Your task to perform on an android device: add a contact Image 0: 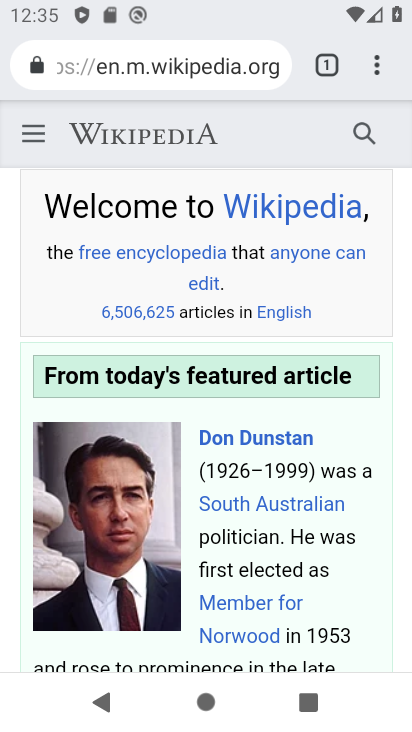
Step 0: press home button
Your task to perform on an android device: add a contact Image 1: 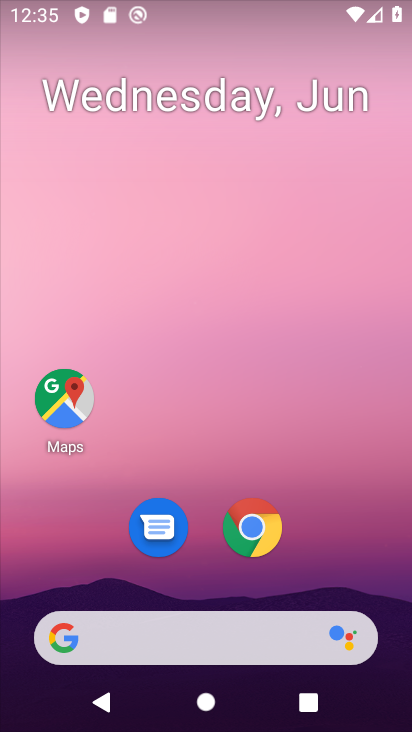
Step 1: drag from (206, 630) to (148, 72)
Your task to perform on an android device: add a contact Image 2: 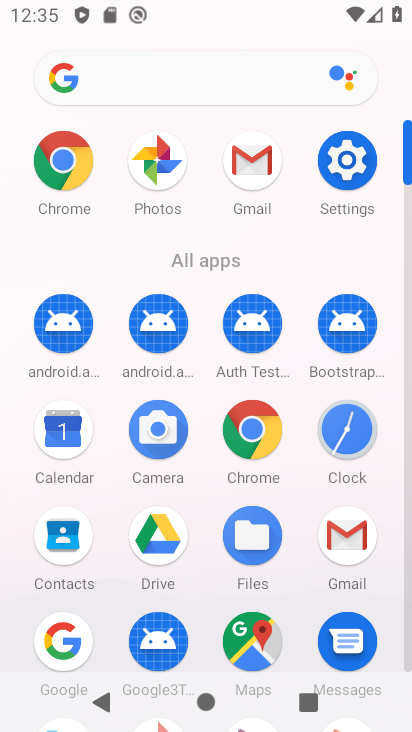
Step 2: click (68, 523)
Your task to perform on an android device: add a contact Image 3: 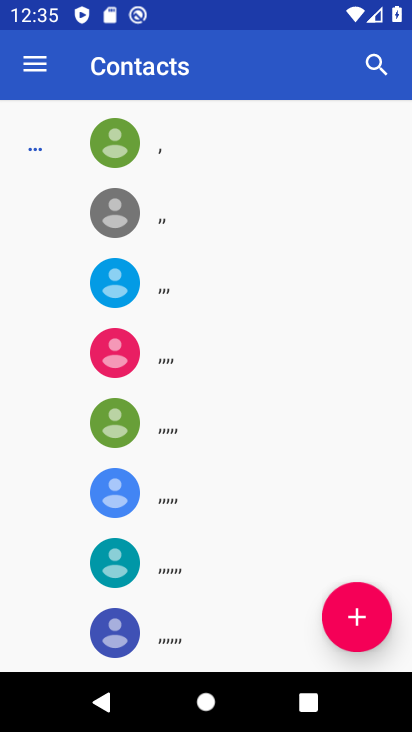
Step 3: click (375, 628)
Your task to perform on an android device: add a contact Image 4: 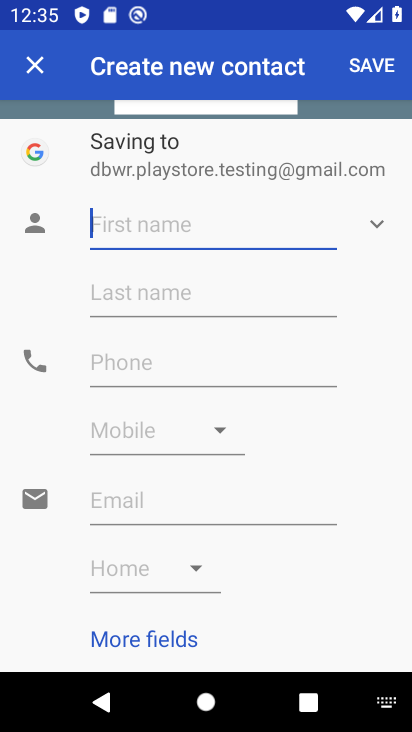
Step 4: type "hfhbk"
Your task to perform on an android device: add a contact Image 5: 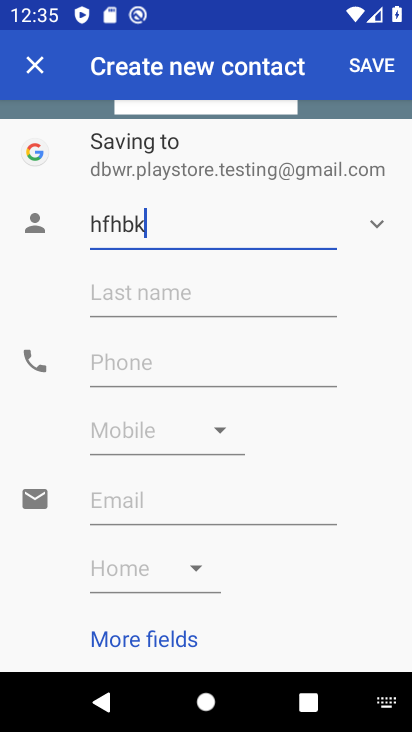
Step 5: click (207, 369)
Your task to perform on an android device: add a contact Image 6: 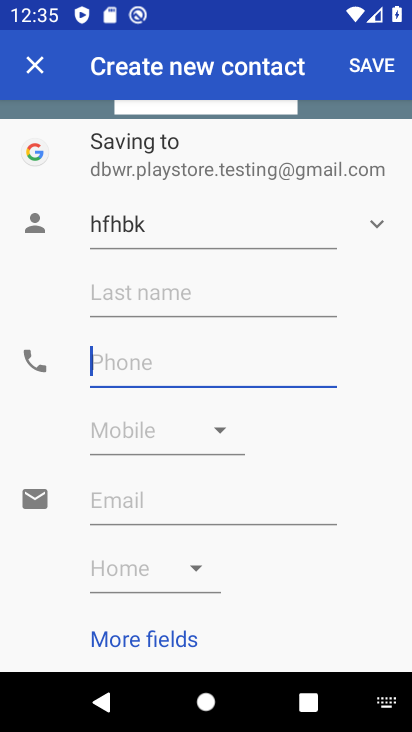
Step 6: type "8978987"
Your task to perform on an android device: add a contact Image 7: 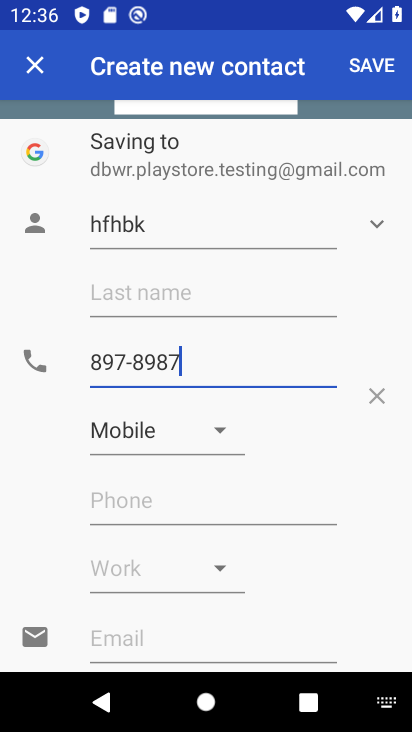
Step 7: click (367, 59)
Your task to perform on an android device: add a contact Image 8: 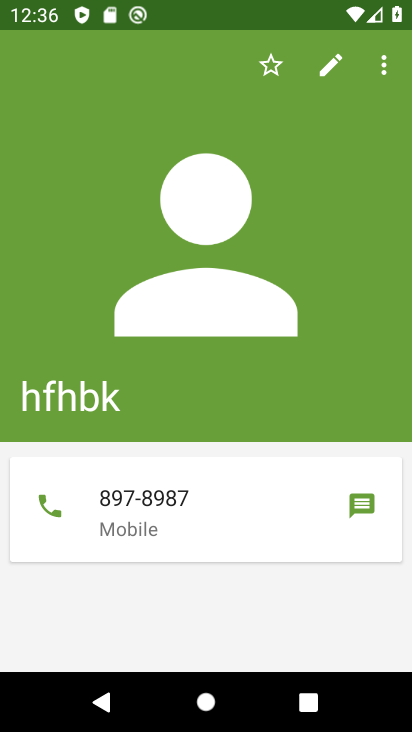
Step 8: task complete